Your task to perform on an android device: Open my contact list Image 0: 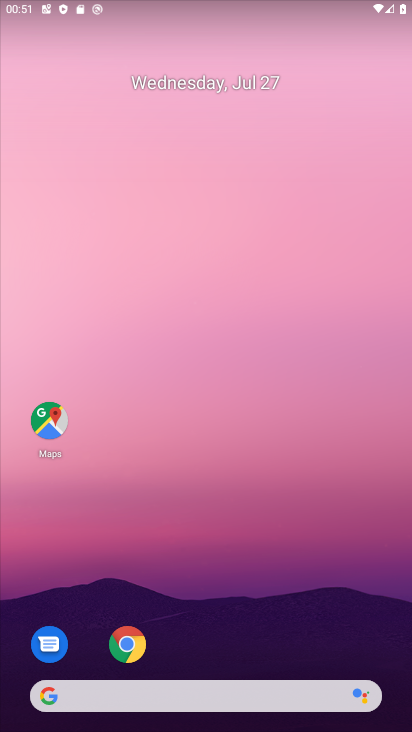
Step 0: click (296, 26)
Your task to perform on an android device: Open my contact list Image 1: 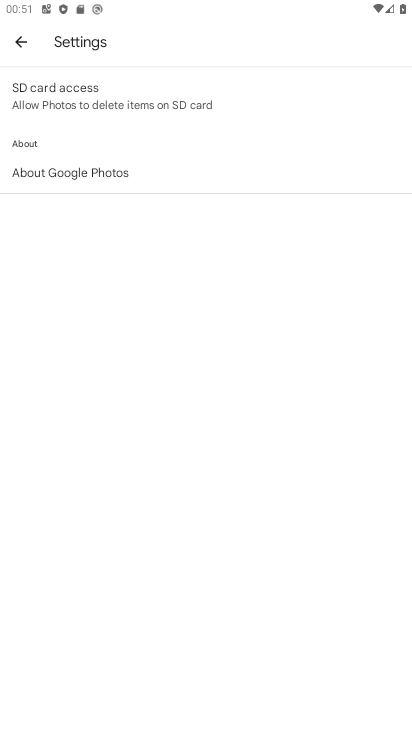
Step 1: click (13, 43)
Your task to perform on an android device: Open my contact list Image 2: 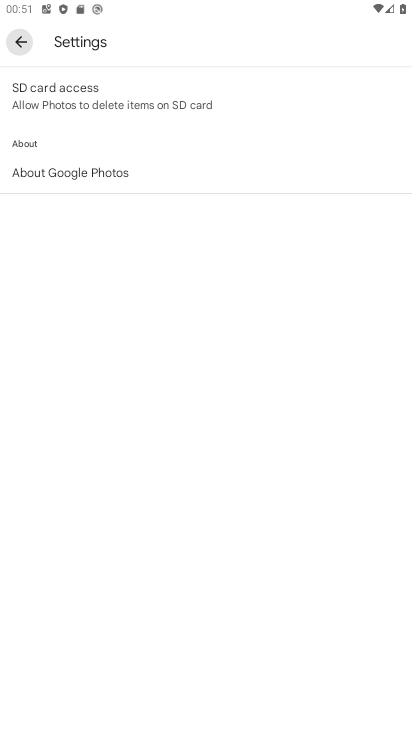
Step 2: click (17, 36)
Your task to perform on an android device: Open my contact list Image 3: 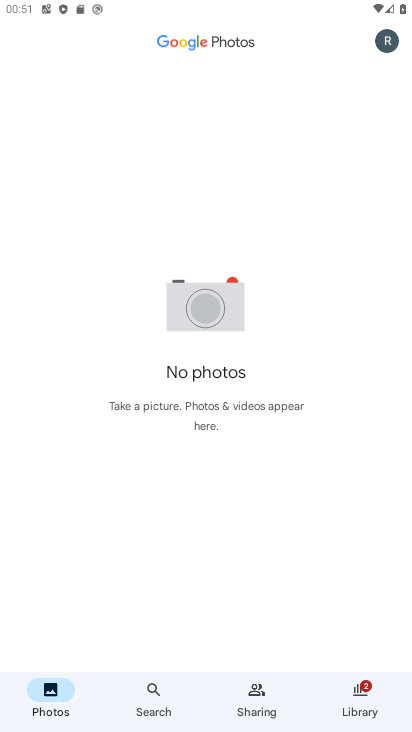
Step 3: press back button
Your task to perform on an android device: Open my contact list Image 4: 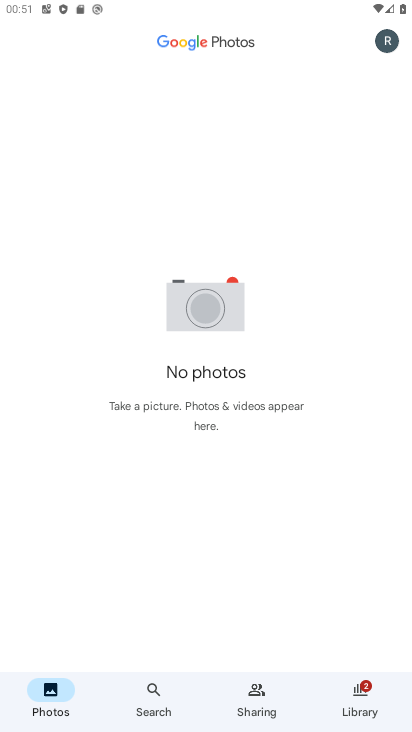
Step 4: press back button
Your task to perform on an android device: Open my contact list Image 5: 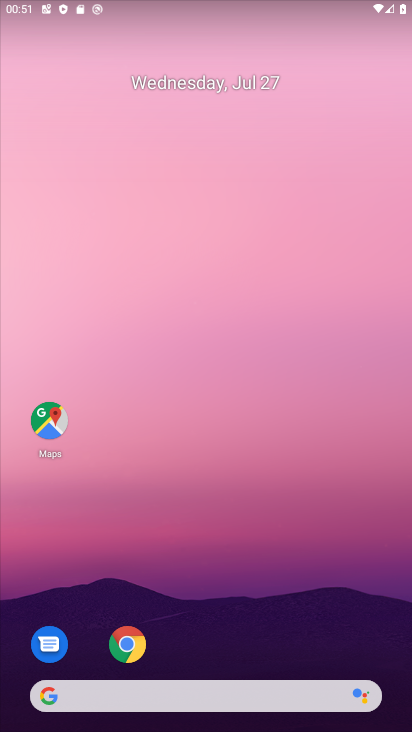
Step 5: drag from (292, 105) to (186, 103)
Your task to perform on an android device: Open my contact list Image 6: 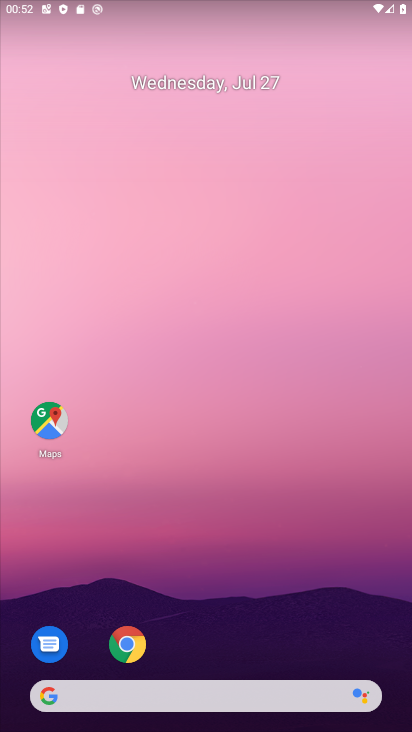
Step 6: drag from (187, 373) to (159, 93)
Your task to perform on an android device: Open my contact list Image 7: 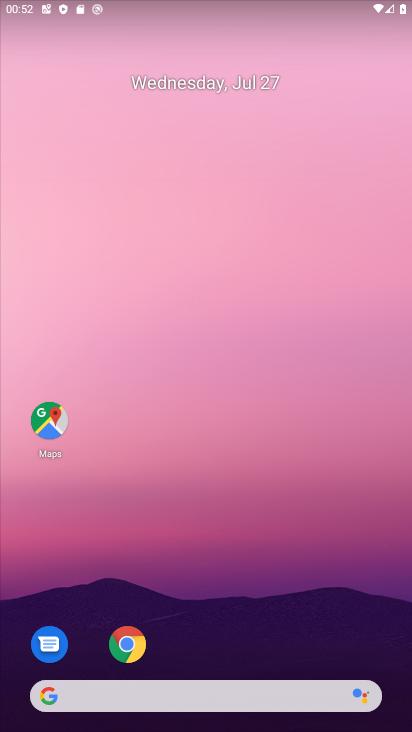
Step 7: drag from (261, 607) to (232, 2)
Your task to perform on an android device: Open my contact list Image 8: 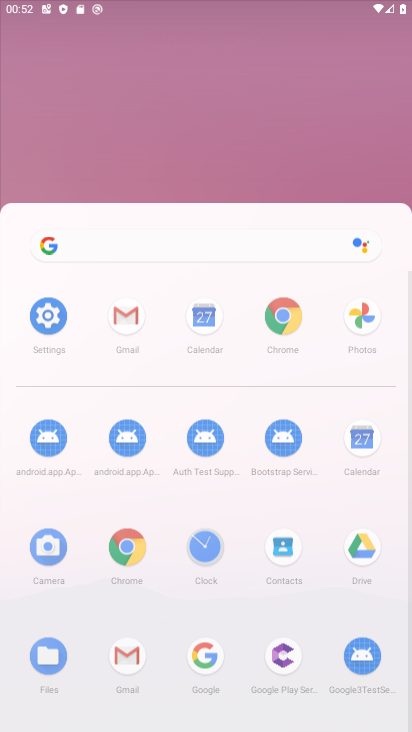
Step 8: drag from (307, 562) to (283, 36)
Your task to perform on an android device: Open my contact list Image 9: 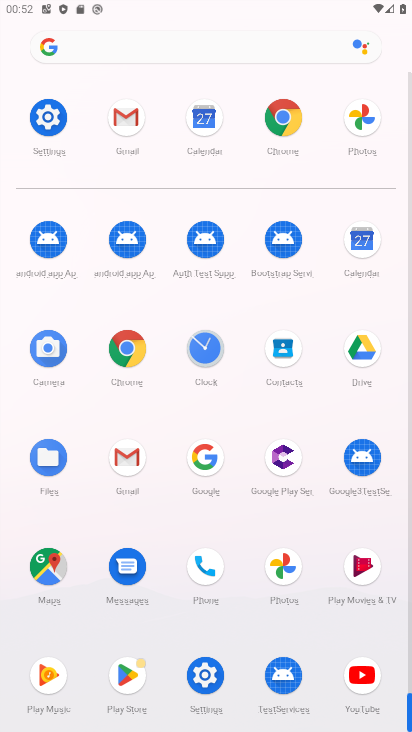
Step 9: click (276, 356)
Your task to perform on an android device: Open my contact list Image 10: 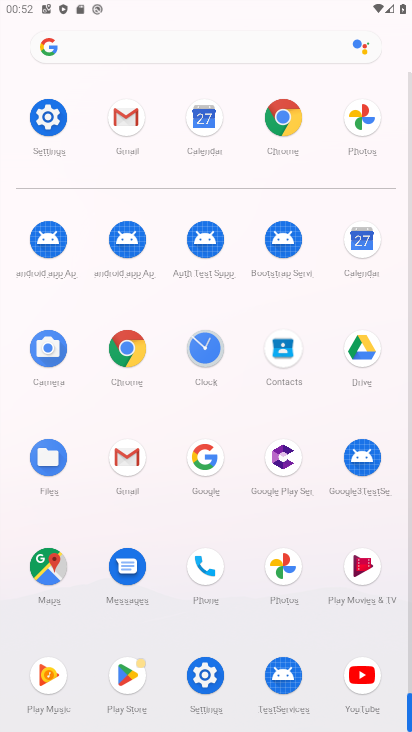
Step 10: click (277, 345)
Your task to perform on an android device: Open my contact list Image 11: 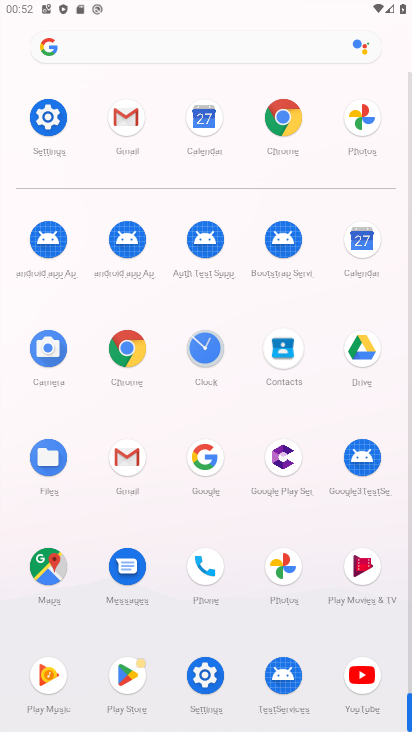
Step 11: click (277, 338)
Your task to perform on an android device: Open my contact list Image 12: 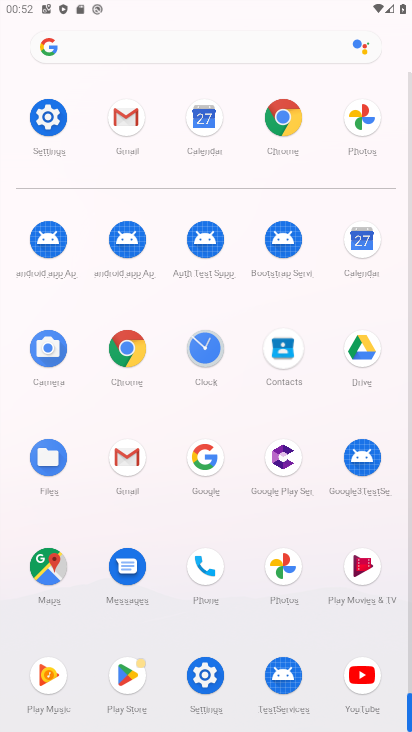
Step 12: click (277, 335)
Your task to perform on an android device: Open my contact list Image 13: 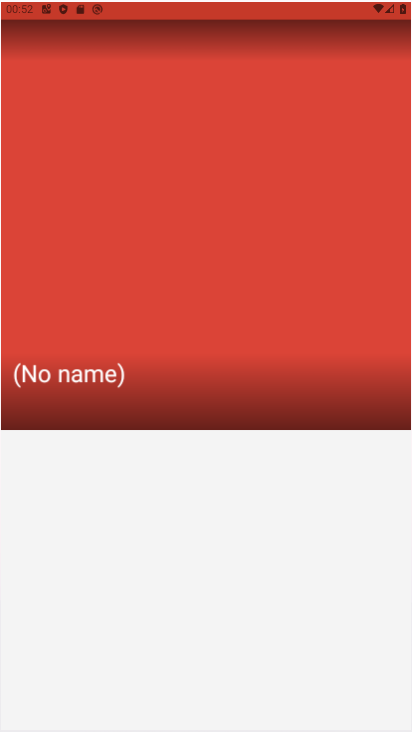
Step 13: click (284, 357)
Your task to perform on an android device: Open my contact list Image 14: 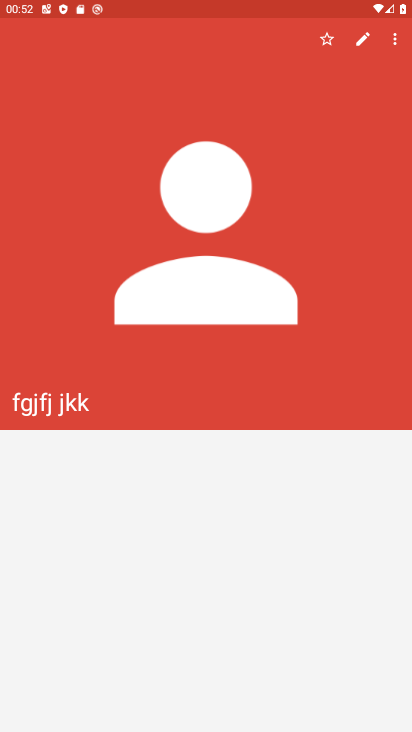
Step 14: click (288, 357)
Your task to perform on an android device: Open my contact list Image 15: 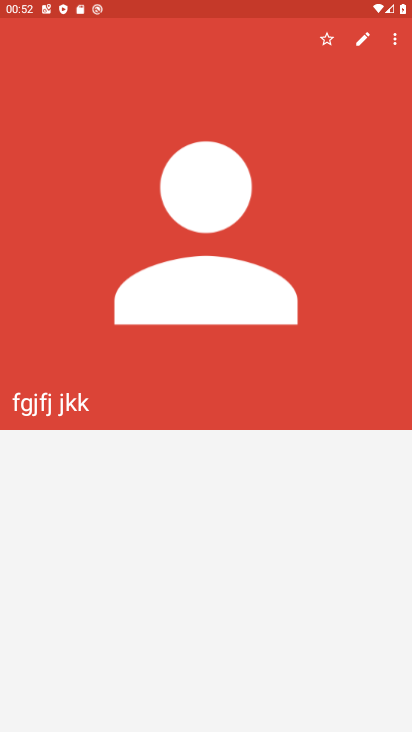
Step 15: click (288, 355)
Your task to perform on an android device: Open my contact list Image 16: 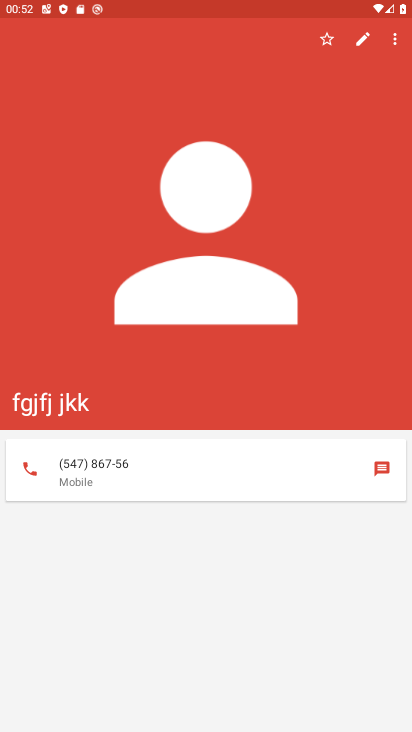
Step 16: task complete